Your task to perform on an android device: Go to Google Image 0: 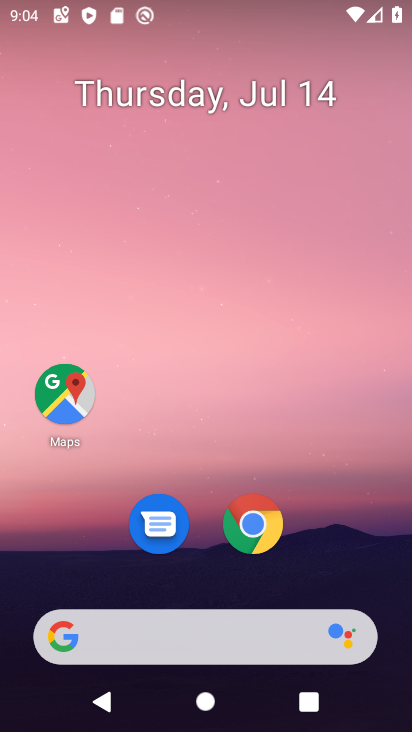
Step 0: click (164, 639)
Your task to perform on an android device: Go to Google Image 1: 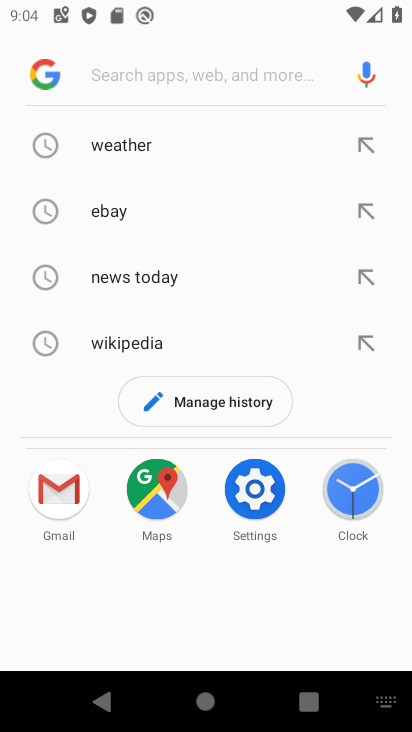
Step 1: click (45, 87)
Your task to perform on an android device: Go to Google Image 2: 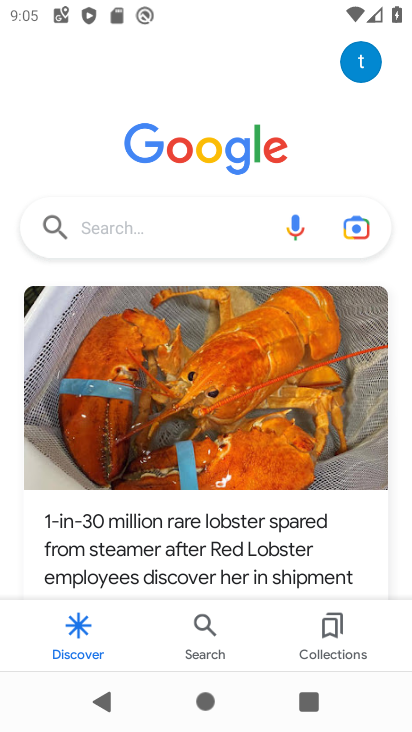
Step 2: task complete